Your task to perform on an android device: See recent photos Image 0: 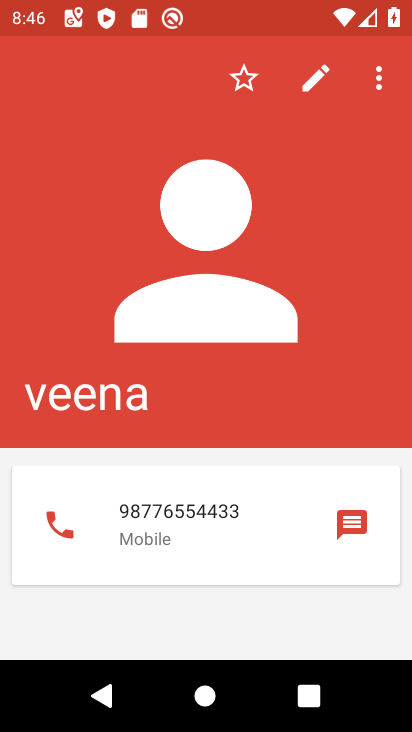
Step 0: press home button
Your task to perform on an android device: See recent photos Image 1: 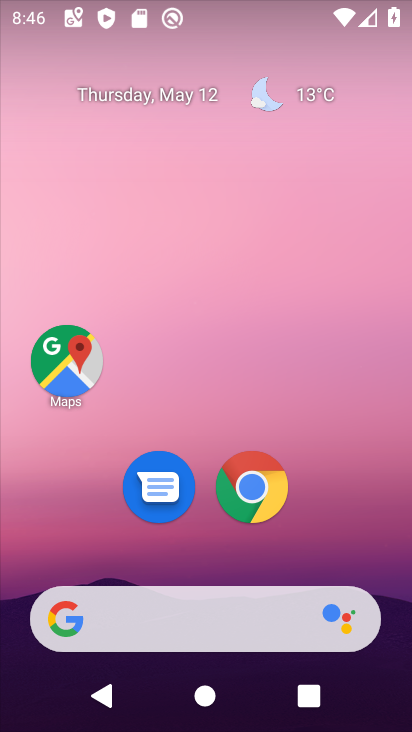
Step 1: drag from (341, 545) to (359, 22)
Your task to perform on an android device: See recent photos Image 2: 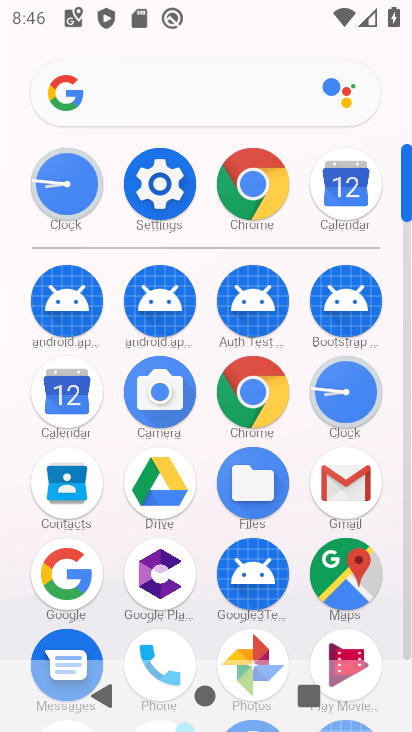
Step 2: click (252, 651)
Your task to perform on an android device: See recent photos Image 3: 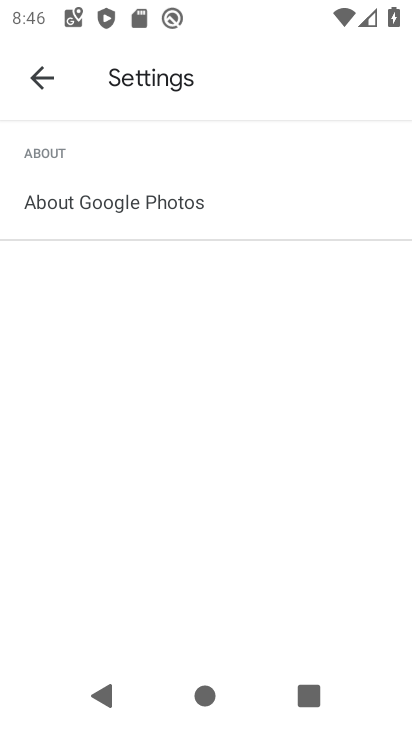
Step 3: click (38, 82)
Your task to perform on an android device: See recent photos Image 4: 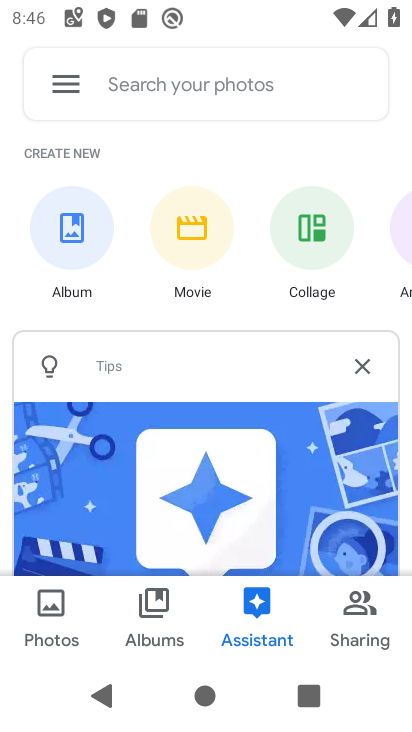
Step 4: task complete